Your task to perform on an android device: Open wifi settings Image 0: 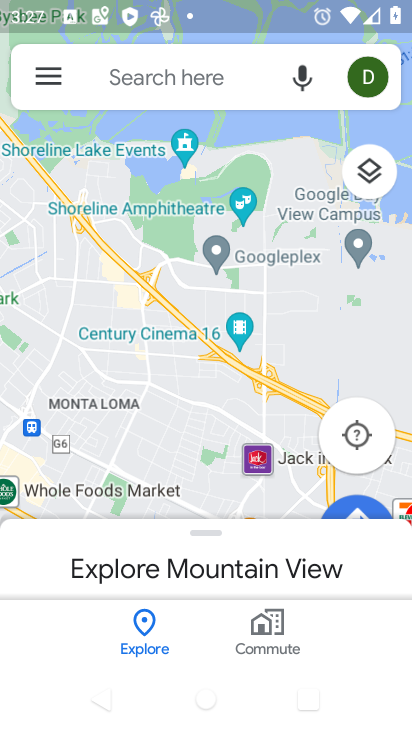
Step 0: press home button
Your task to perform on an android device: Open wifi settings Image 1: 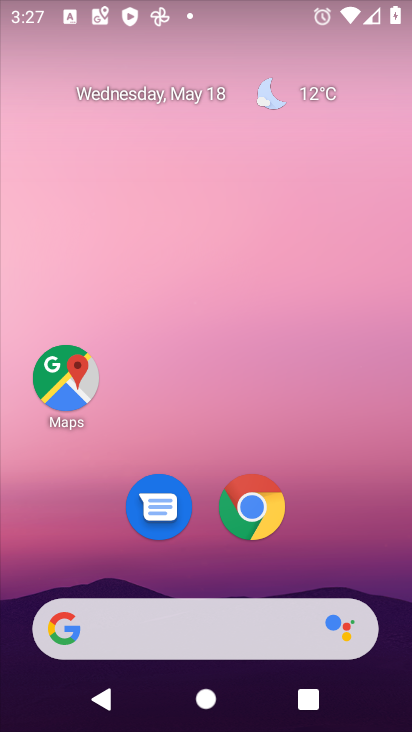
Step 1: drag from (401, 631) to (273, 191)
Your task to perform on an android device: Open wifi settings Image 2: 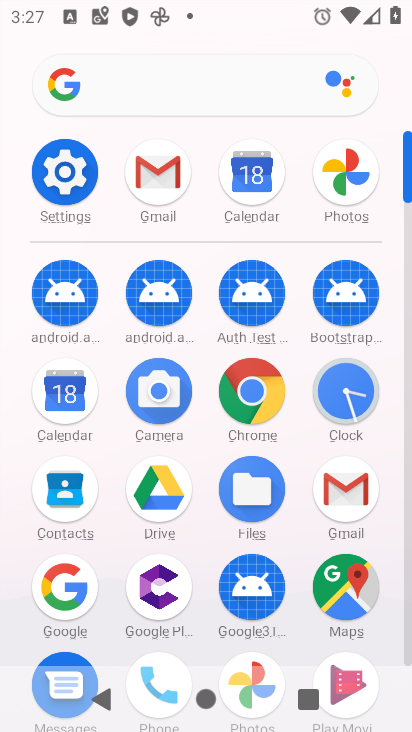
Step 2: click (408, 653)
Your task to perform on an android device: Open wifi settings Image 3: 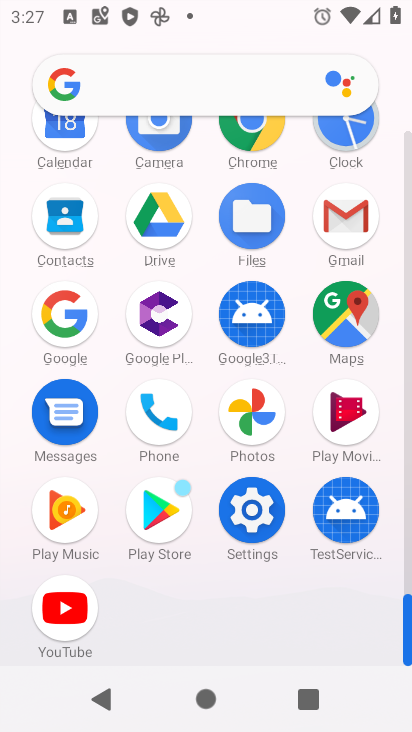
Step 3: click (253, 510)
Your task to perform on an android device: Open wifi settings Image 4: 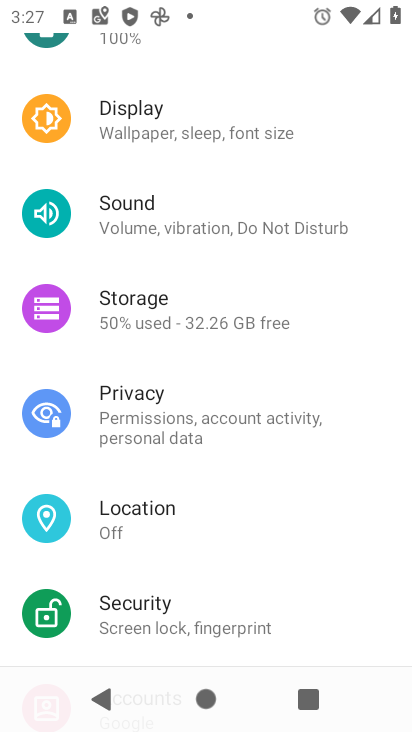
Step 4: drag from (384, 174) to (342, 489)
Your task to perform on an android device: Open wifi settings Image 5: 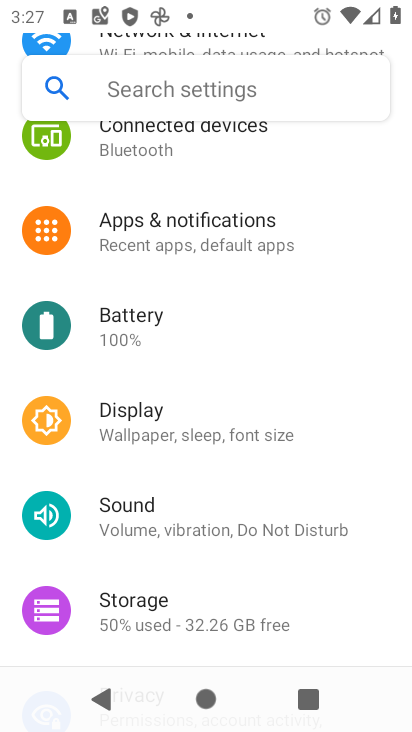
Step 5: drag from (338, 199) to (308, 514)
Your task to perform on an android device: Open wifi settings Image 6: 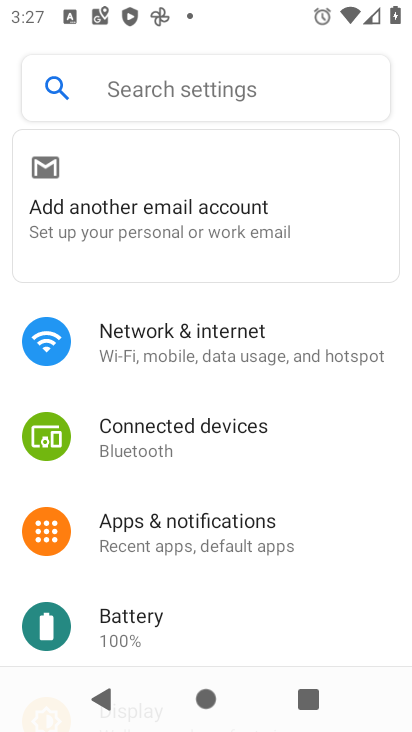
Step 6: click (143, 334)
Your task to perform on an android device: Open wifi settings Image 7: 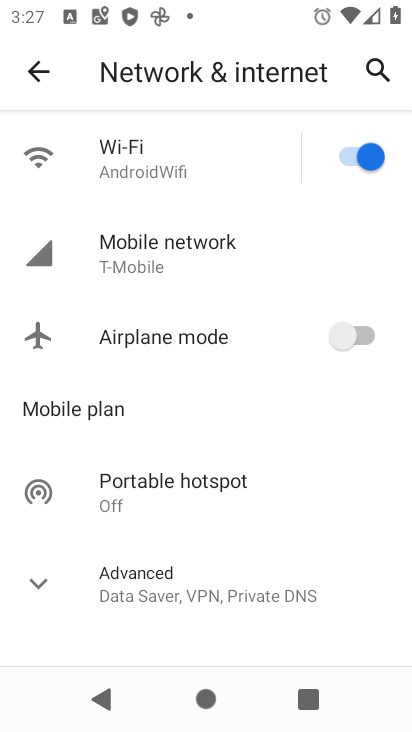
Step 7: click (118, 148)
Your task to perform on an android device: Open wifi settings Image 8: 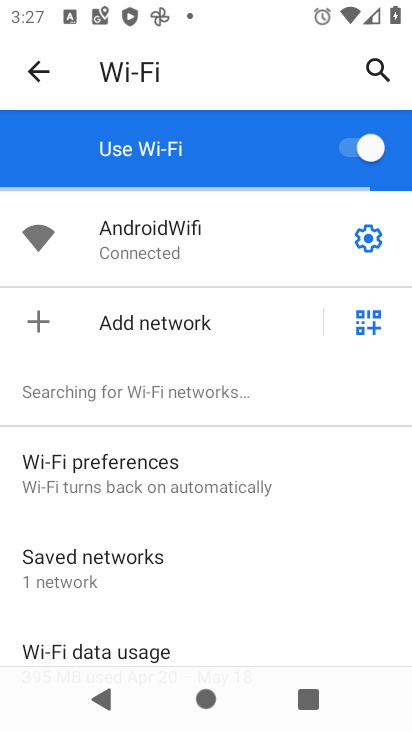
Step 8: drag from (226, 587) to (220, 265)
Your task to perform on an android device: Open wifi settings Image 9: 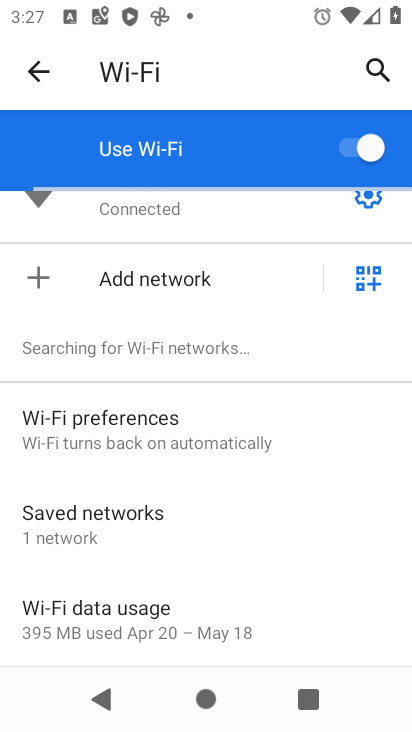
Step 9: click (366, 198)
Your task to perform on an android device: Open wifi settings Image 10: 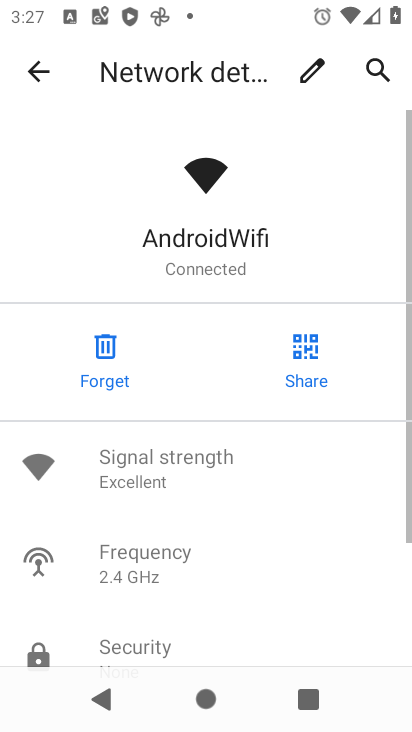
Step 10: drag from (255, 607) to (208, 239)
Your task to perform on an android device: Open wifi settings Image 11: 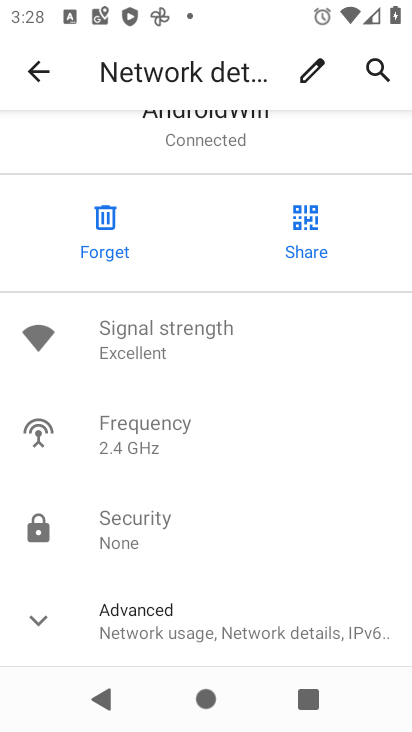
Step 11: click (40, 618)
Your task to perform on an android device: Open wifi settings Image 12: 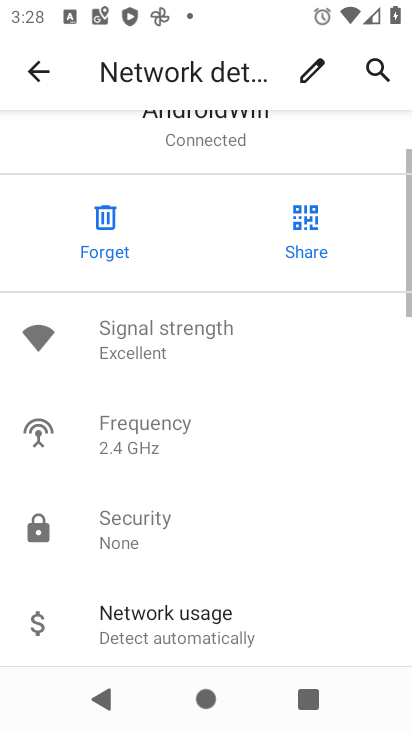
Step 12: task complete